Your task to perform on an android device: check storage Image 0: 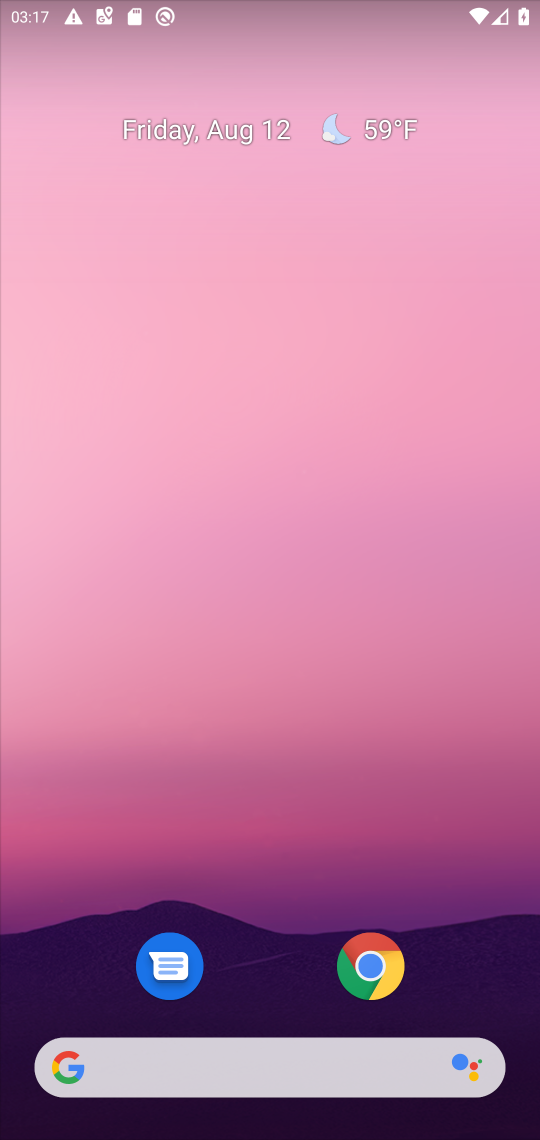
Step 0: drag from (271, 779) to (412, 49)
Your task to perform on an android device: check storage Image 1: 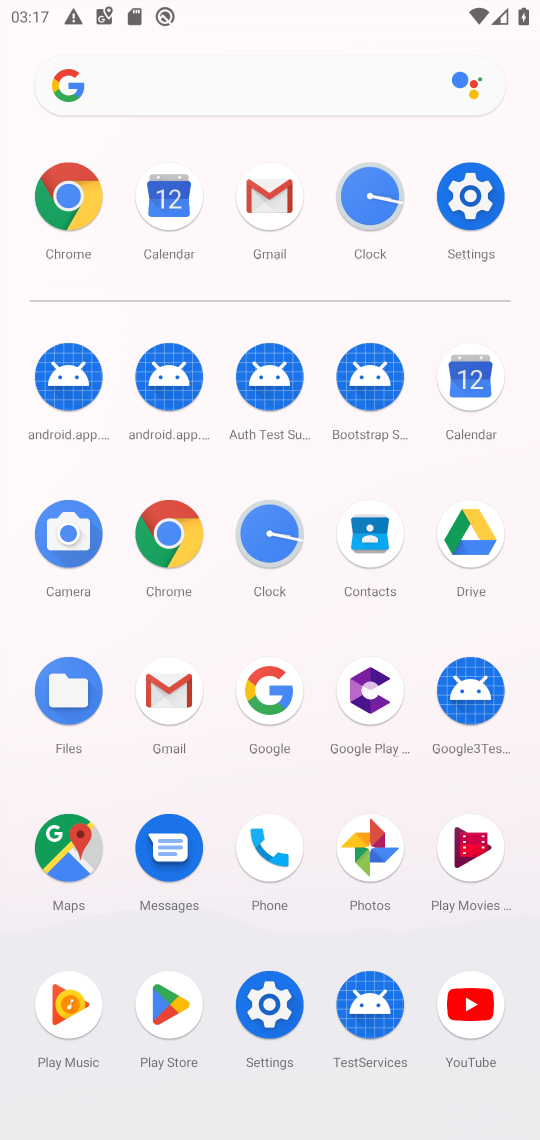
Step 1: click (275, 1014)
Your task to perform on an android device: check storage Image 2: 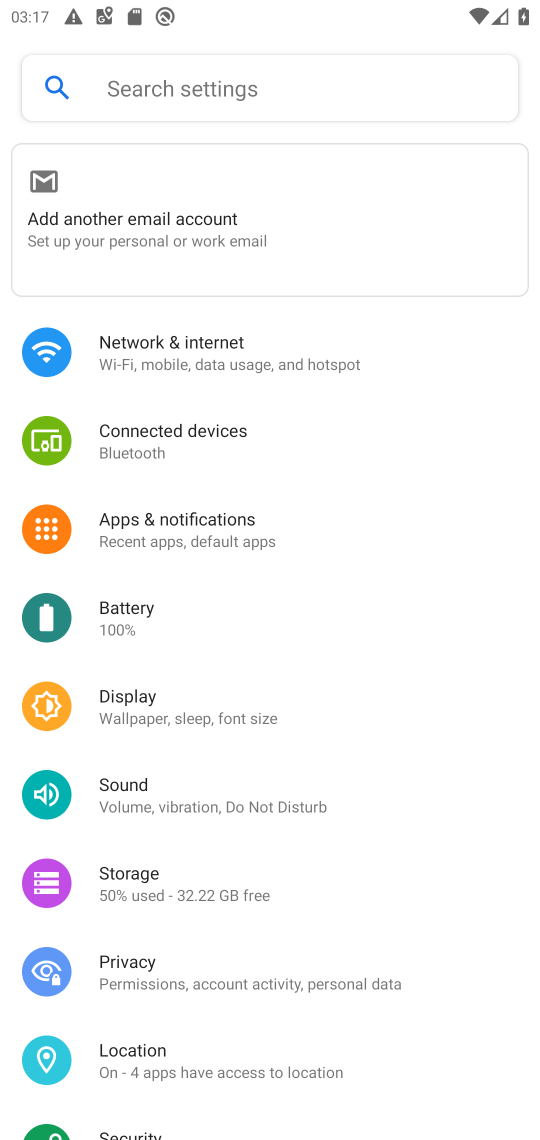
Step 2: click (177, 894)
Your task to perform on an android device: check storage Image 3: 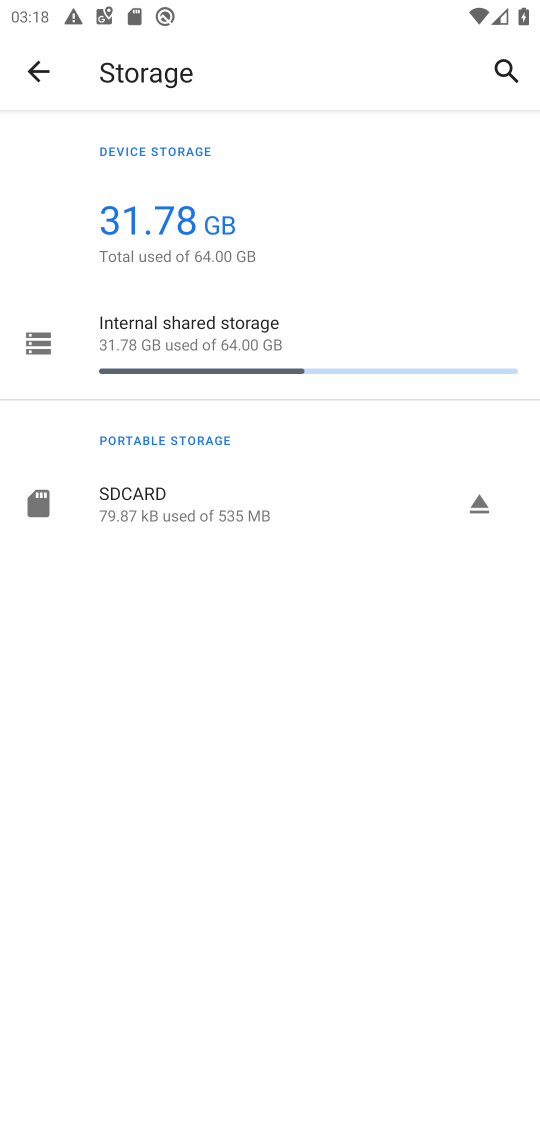
Step 3: task complete